Your task to perform on an android device: Turn on the flashlight Image 0: 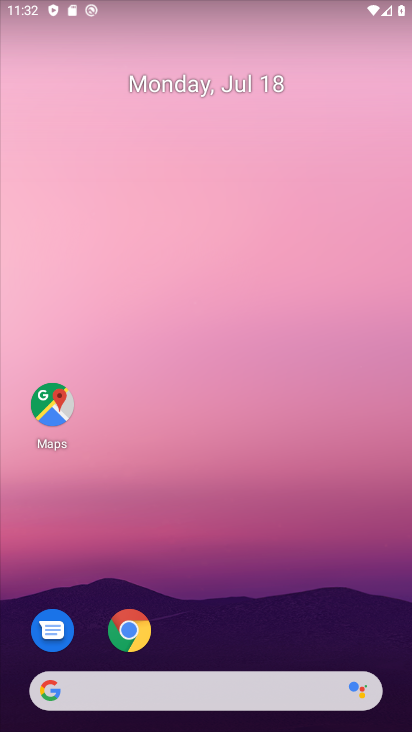
Step 0: drag from (240, 612) to (242, 6)
Your task to perform on an android device: Turn on the flashlight Image 1: 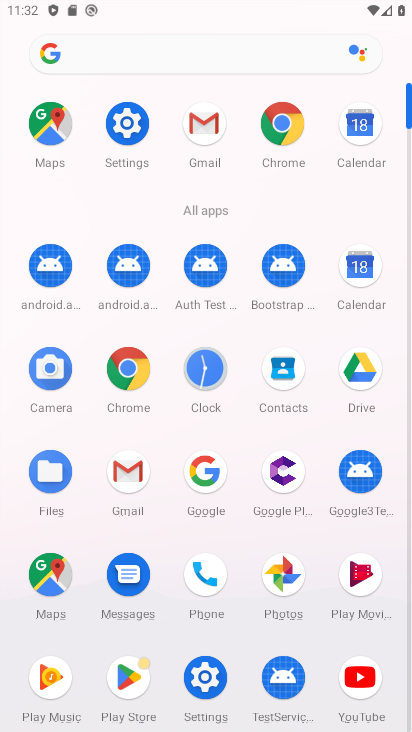
Step 1: click (198, 673)
Your task to perform on an android device: Turn on the flashlight Image 2: 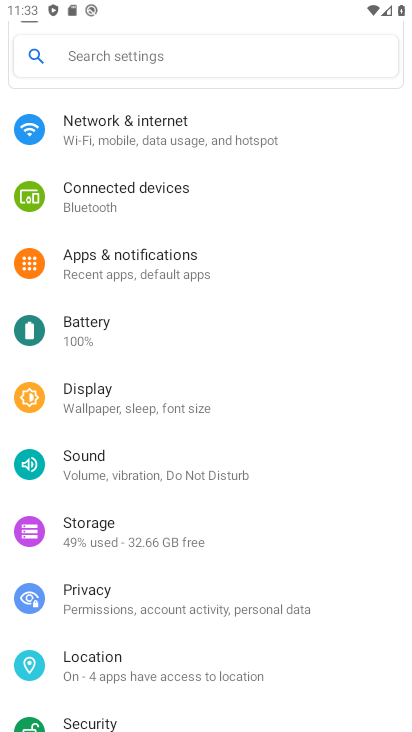
Step 2: click (230, 56)
Your task to perform on an android device: Turn on the flashlight Image 3: 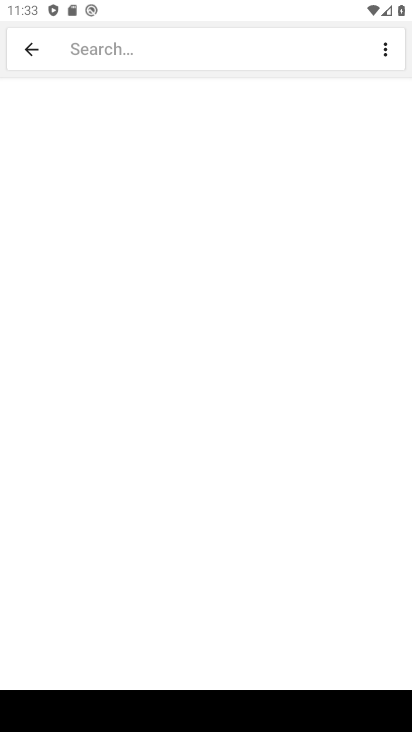
Step 3: type "flashlight"
Your task to perform on an android device: Turn on the flashlight Image 4: 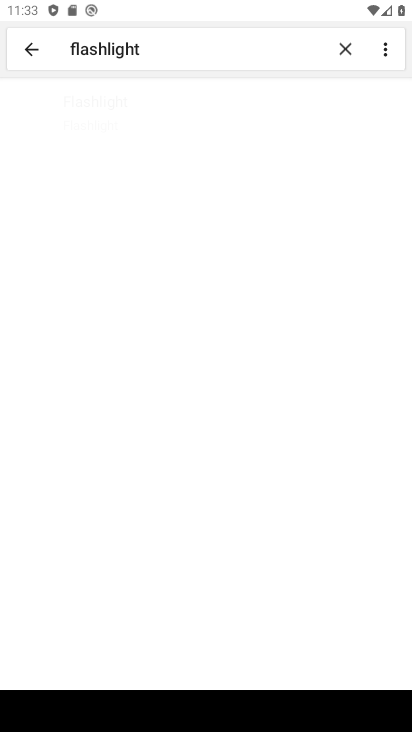
Step 4: click (111, 135)
Your task to perform on an android device: Turn on the flashlight Image 5: 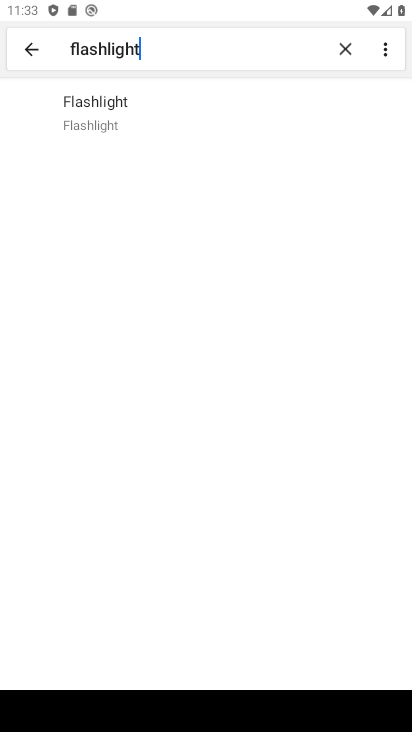
Step 5: click (121, 124)
Your task to perform on an android device: Turn on the flashlight Image 6: 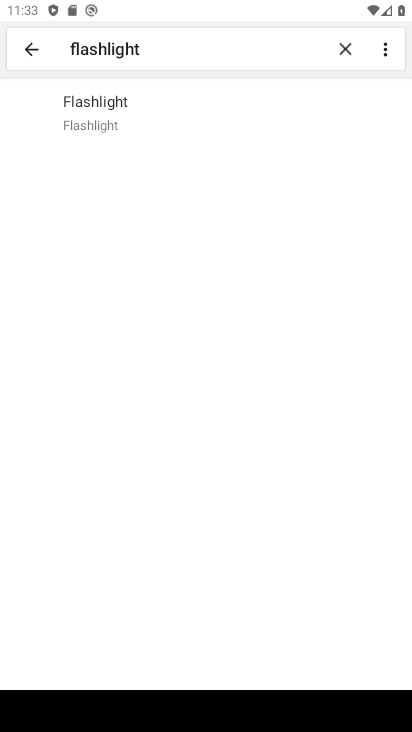
Step 6: task complete